Your task to perform on an android device: Go to Android settings Image 0: 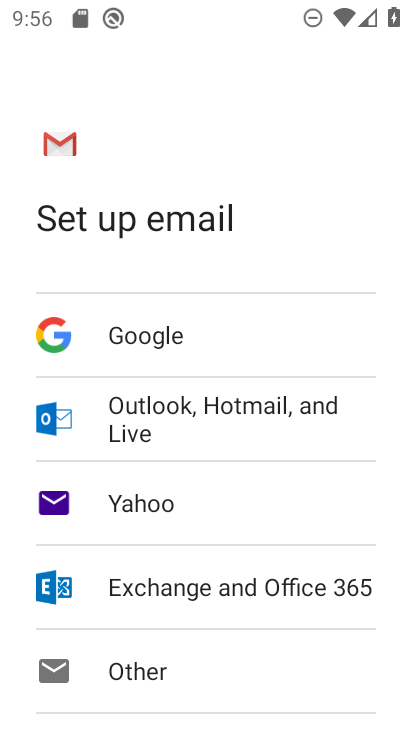
Step 0: press home button
Your task to perform on an android device: Go to Android settings Image 1: 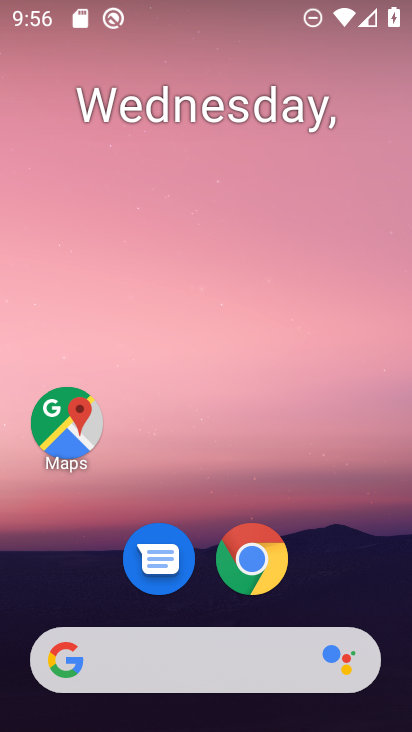
Step 1: drag from (384, 565) to (390, 112)
Your task to perform on an android device: Go to Android settings Image 2: 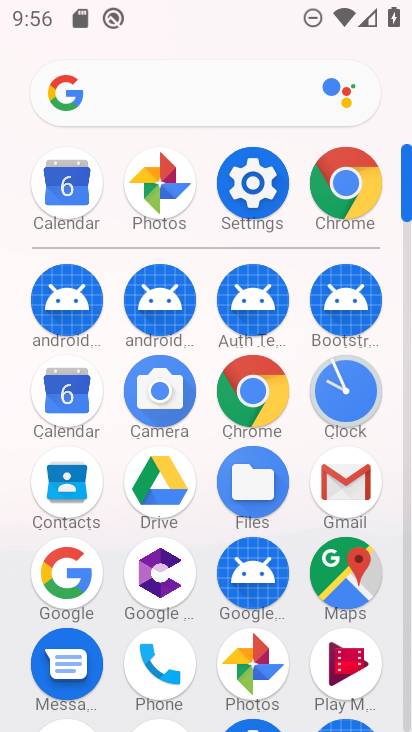
Step 2: click (257, 190)
Your task to perform on an android device: Go to Android settings Image 3: 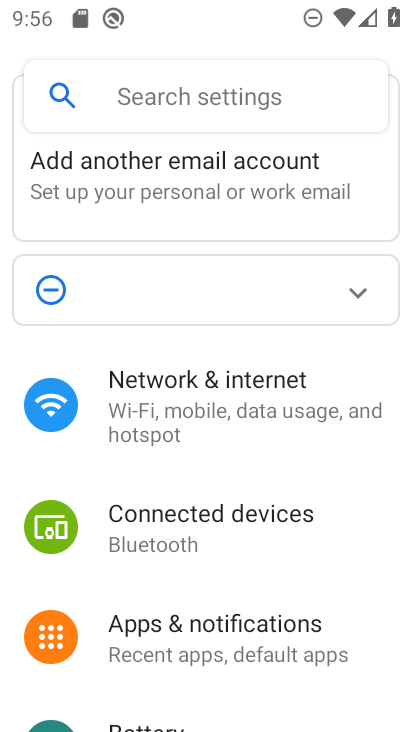
Step 3: drag from (388, 650) to (396, 567)
Your task to perform on an android device: Go to Android settings Image 4: 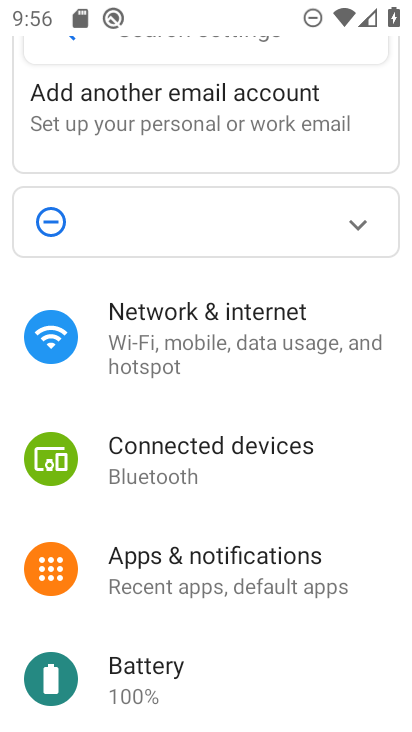
Step 4: drag from (367, 669) to (365, 546)
Your task to perform on an android device: Go to Android settings Image 5: 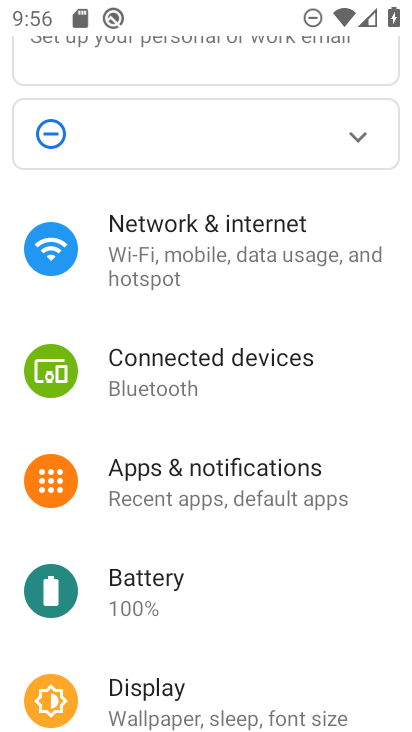
Step 5: drag from (357, 625) to (355, 528)
Your task to perform on an android device: Go to Android settings Image 6: 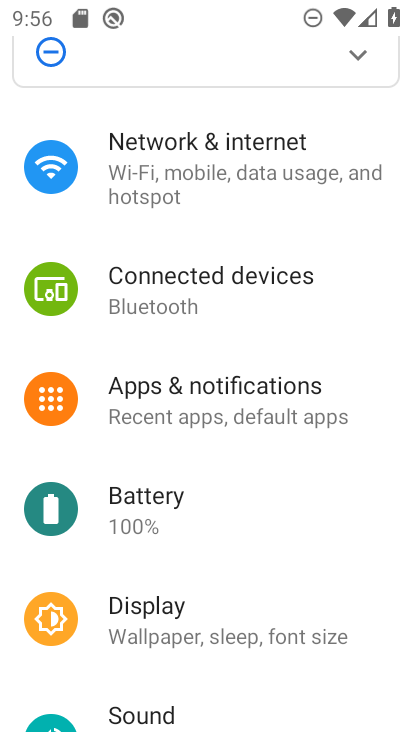
Step 6: drag from (357, 638) to (358, 565)
Your task to perform on an android device: Go to Android settings Image 7: 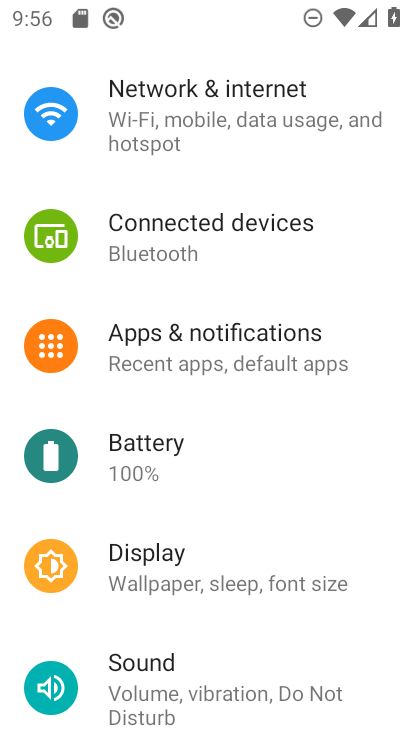
Step 7: drag from (374, 654) to (378, 554)
Your task to perform on an android device: Go to Android settings Image 8: 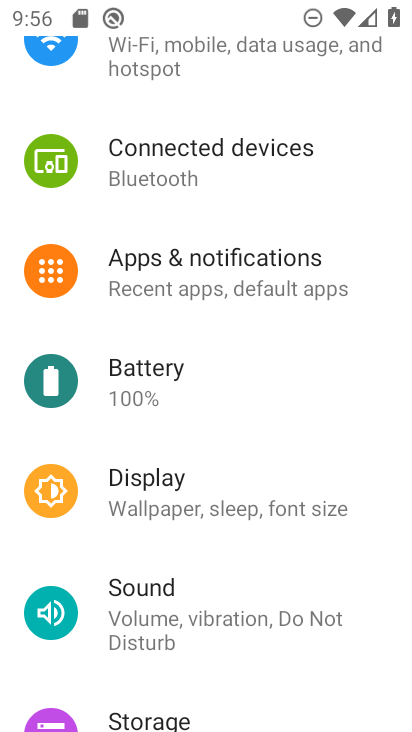
Step 8: drag from (383, 668) to (379, 598)
Your task to perform on an android device: Go to Android settings Image 9: 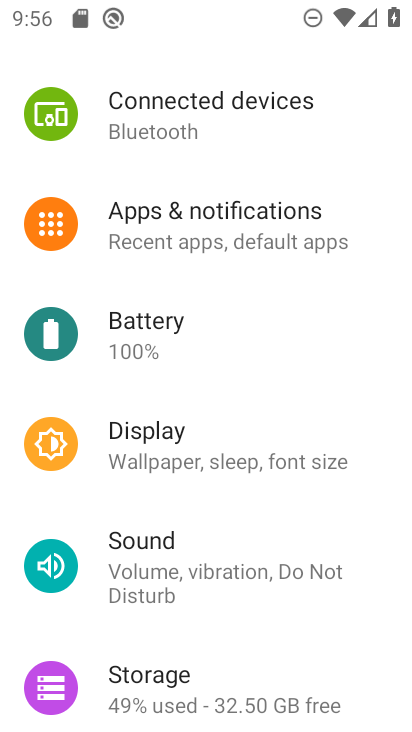
Step 9: drag from (376, 667) to (373, 581)
Your task to perform on an android device: Go to Android settings Image 10: 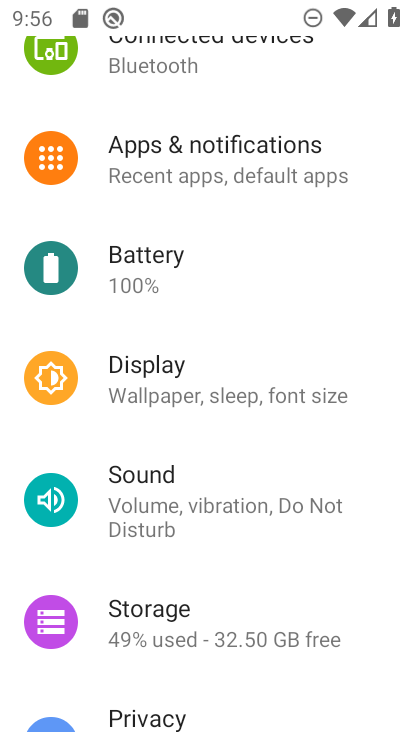
Step 10: drag from (368, 677) to (366, 566)
Your task to perform on an android device: Go to Android settings Image 11: 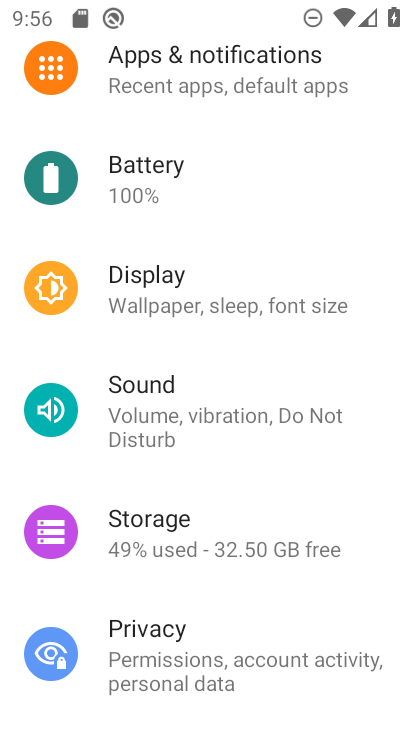
Step 11: drag from (362, 693) to (367, 542)
Your task to perform on an android device: Go to Android settings Image 12: 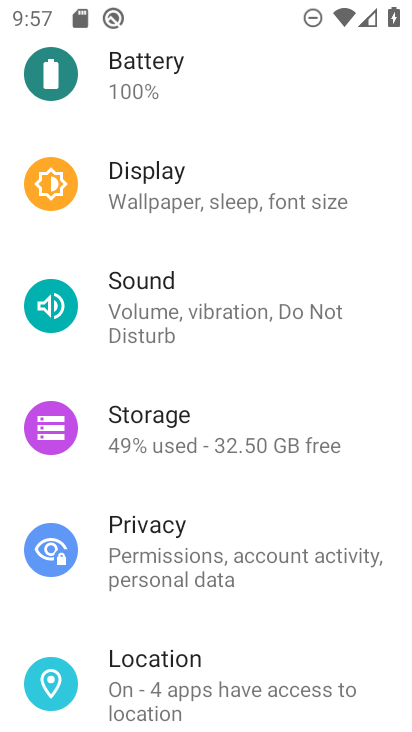
Step 12: drag from (378, 659) to (381, 546)
Your task to perform on an android device: Go to Android settings Image 13: 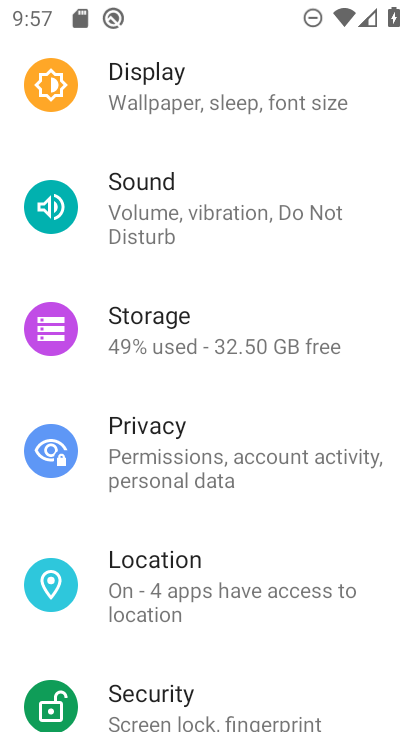
Step 13: drag from (389, 626) to (392, 534)
Your task to perform on an android device: Go to Android settings Image 14: 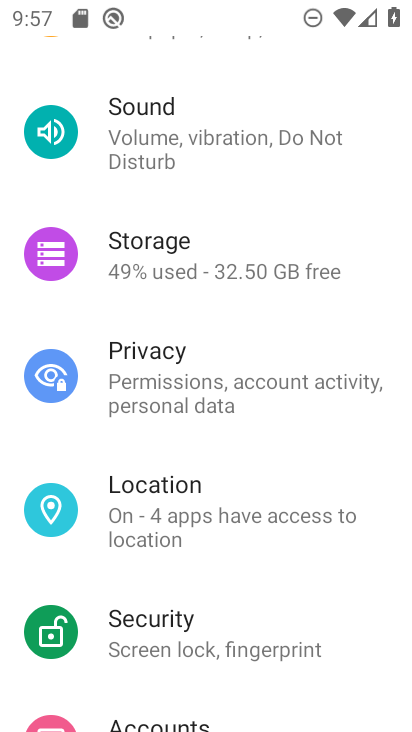
Step 14: drag from (373, 650) to (371, 554)
Your task to perform on an android device: Go to Android settings Image 15: 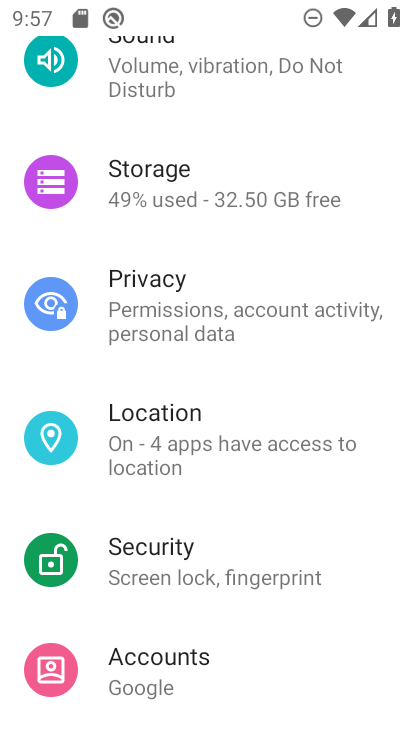
Step 15: drag from (377, 642) to (372, 549)
Your task to perform on an android device: Go to Android settings Image 16: 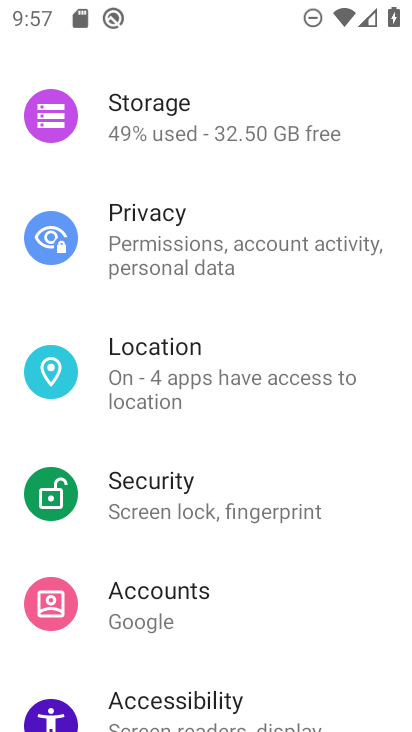
Step 16: drag from (360, 580) to (354, 421)
Your task to perform on an android device: Go to Android settings Image 17: 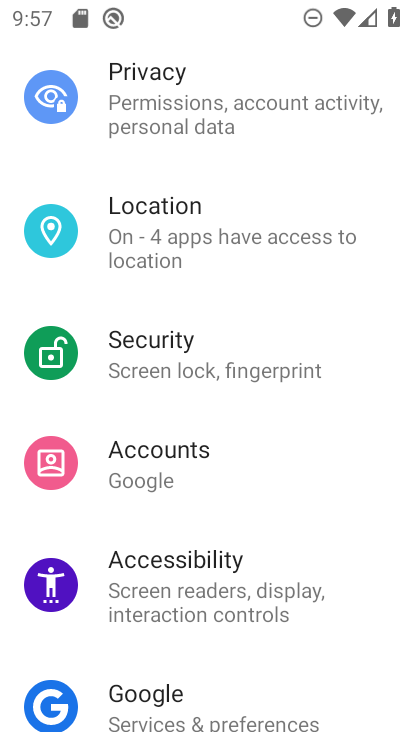
Step 17: drag from (389, 615) to (389, 425)
Your task to perform on an android device: Go to Android settings Image 18: 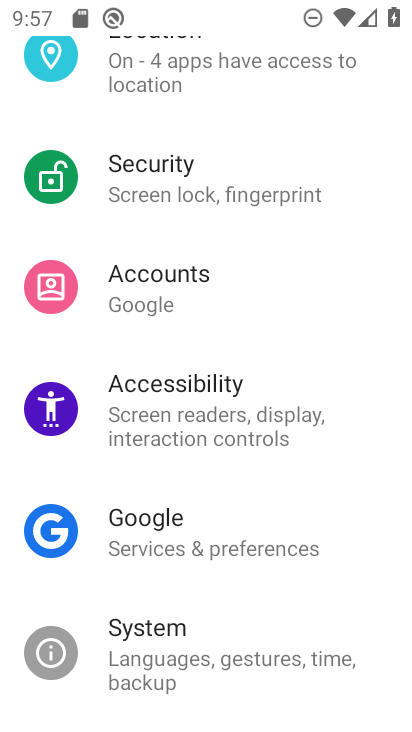
Step 18: click (323, 651)
Your task to perform on an android device: Go to Android settings Image 19: 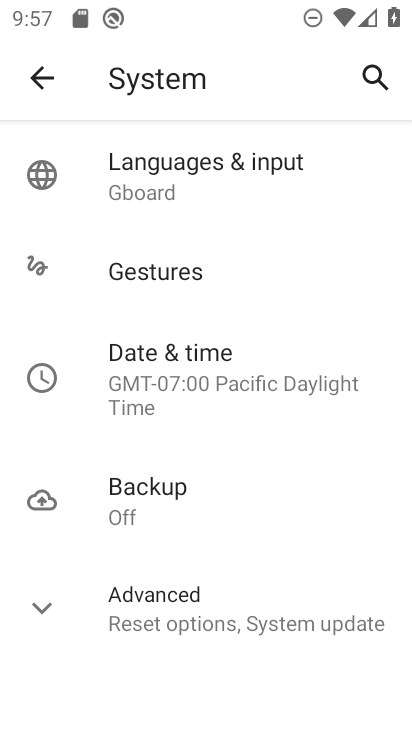
Step 19: click (287, 632)
Your task to perform on an android device: Go to Android settings Image 20: 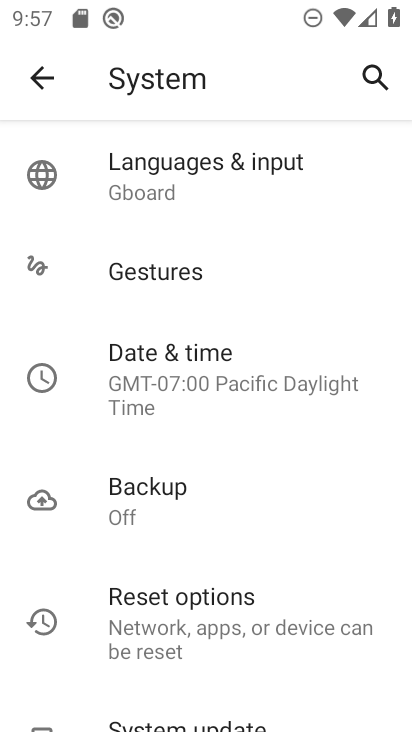
Step 20: task complete